Your task to perform on an android device: Go to location settings Image 0: 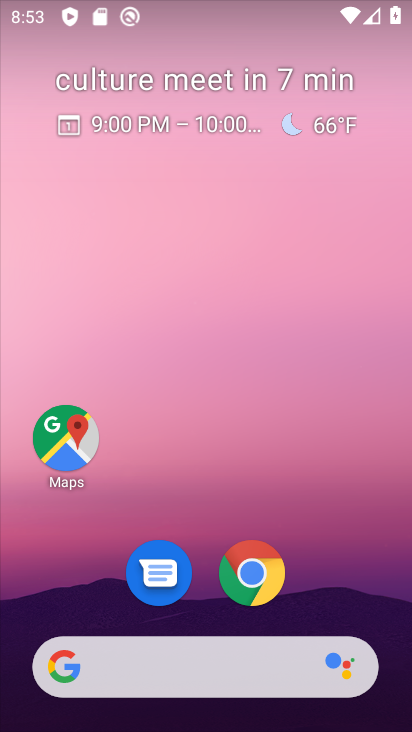
Step 0: drag from (77, 609) to (212, 134)
Your task to perform on an android device: Go to location settings Image 1: 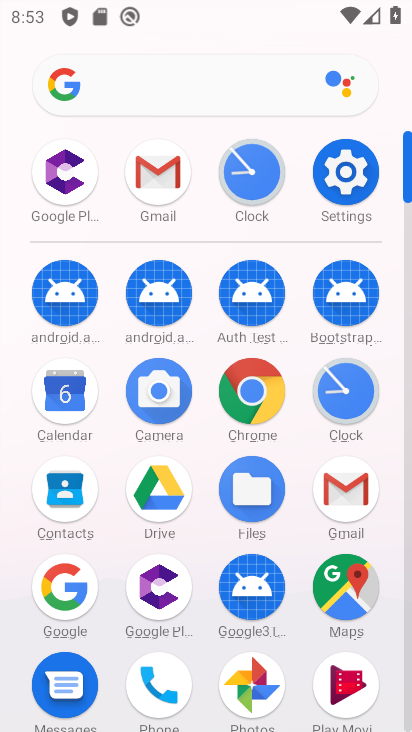
Step 1: click (341, 176)
Your task to perform on an android device: Go to location settings Image 2: 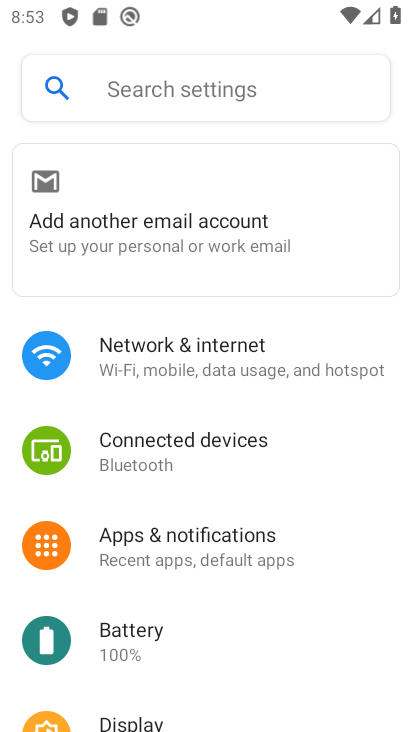
Step 2: drag from (199, 615) to (268, 96)
Your task to perform on an android device: Go to location settings Image 3: 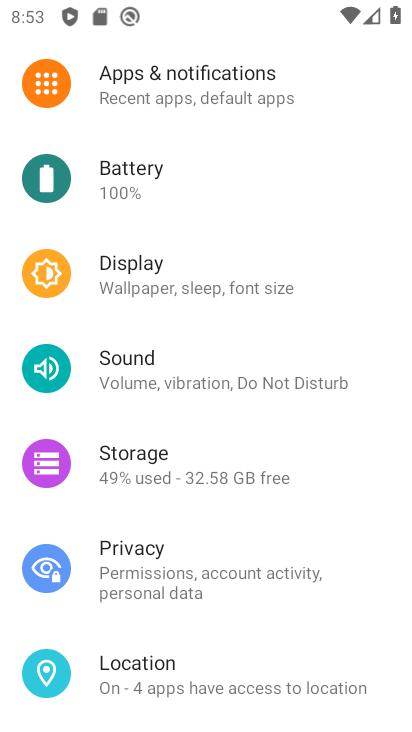
Step 3: click (149, 677)
Your task to perform on an android device: Go to location settings Image 4: 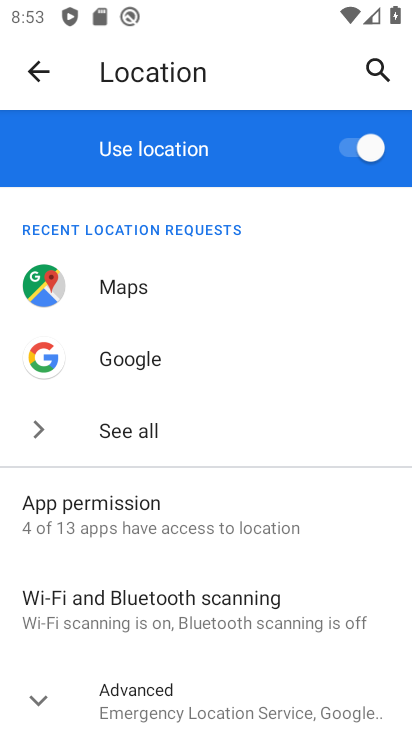
Step 4: task complete